Your task to perform on an android device: turn off javascript in the chrome app Image 0: 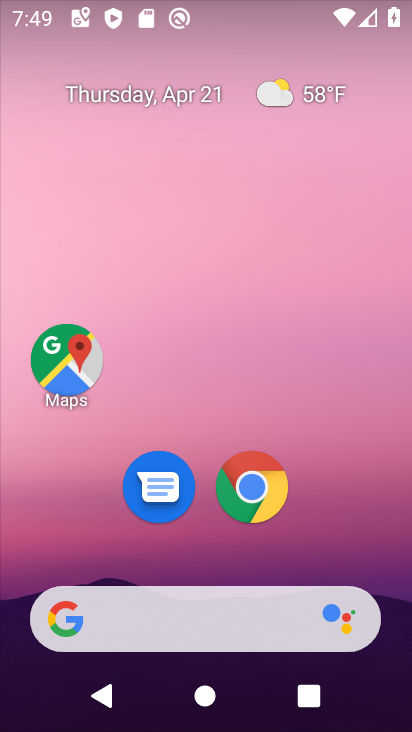
Step 0: drag from (314, 390) to (224, 2)
Your task to perform on an android device: turn off javascript in the chrome app Image 1: 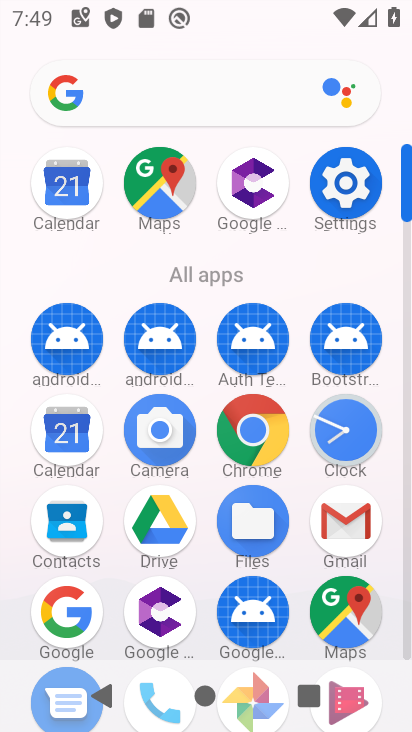
Step 1: drag from (15, 527) to (15, 240)
Your task to perform on an android device: turn off javascript in the chrome app Image 2: 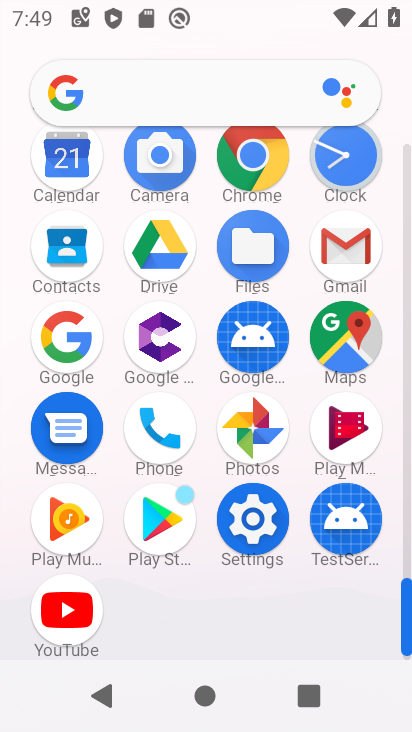
Step 2: click (252, 158)
Your task to perform on an android device: turn off javascript in the chrome app Image 3: 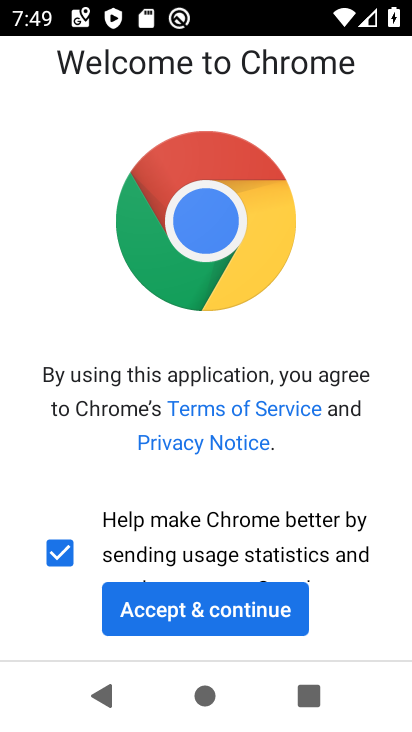
Step 3: click (200, 594)
Your task to perform on an android device: turn off javascript in the chrome app Image 4: 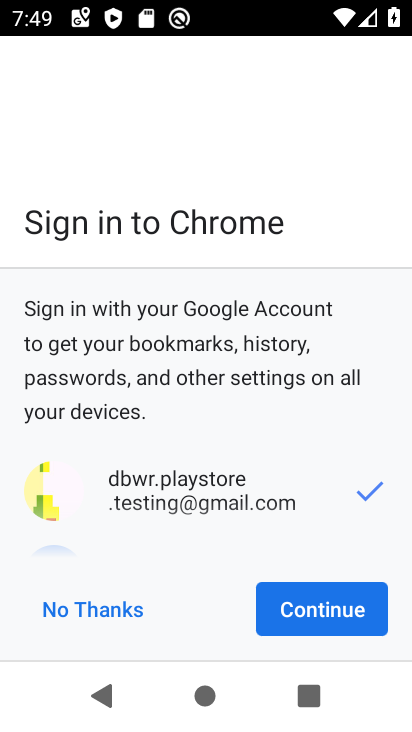
Step 4: click (308, 605)
Your task to perform on an android device: turn off javascript in the chrome app Image 5: 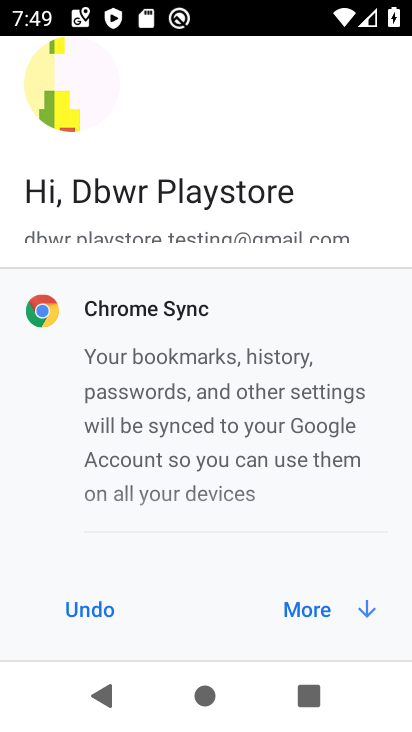
Step 5: click (308, 605)
Your task to perform on an android device: turn off javascript in the chrome app Image 6: 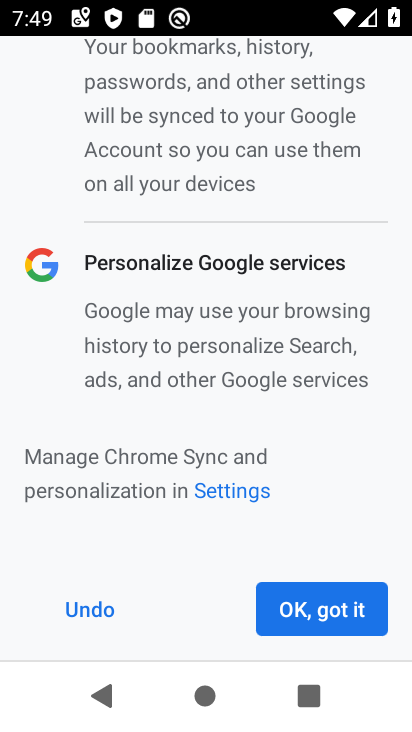
Step 6: click (308, 605)
Your task to perform on an android device: turn off javascript in the chrome app Image 7: 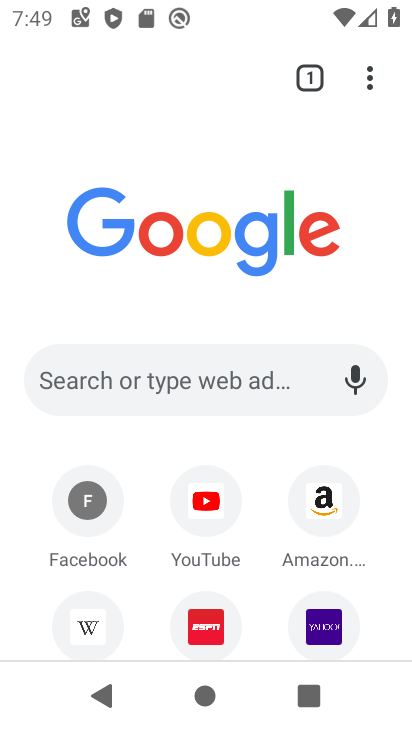
Step 7: drag from (369, 80) to (148, 533)
Your task to perform on an android device: turn off javascript in the chrome app Image 8: 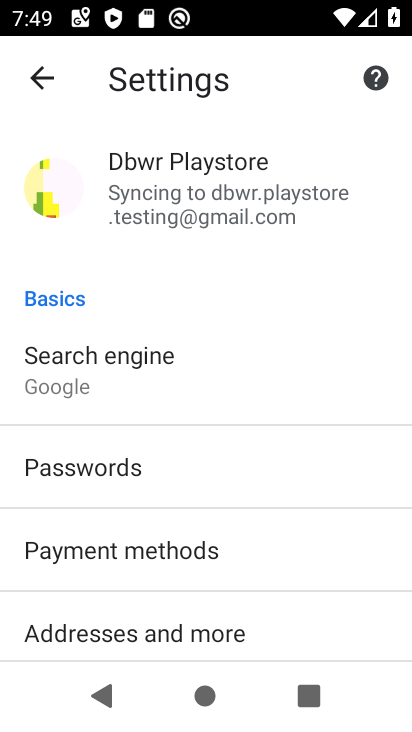
Step 8: drag from (238, 440) to (238, 186)
Your task to perform on an android device: turn off javascript in the chrome app Image 9: 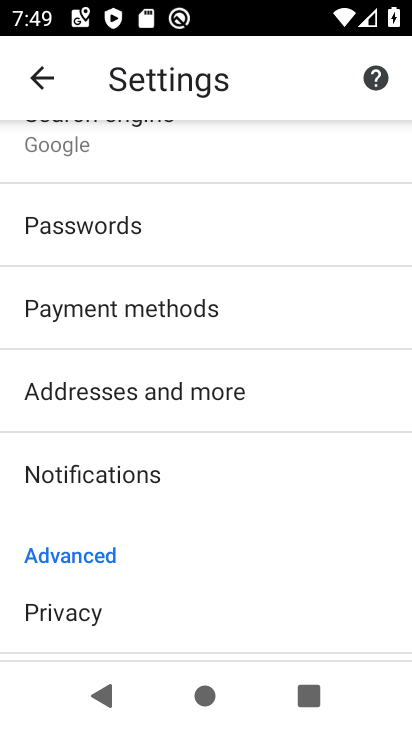
Step 9: drag from (248, 570) to (253, 163)
Your task to perform on an android device: turn off javascript in the chrome app Image 10: 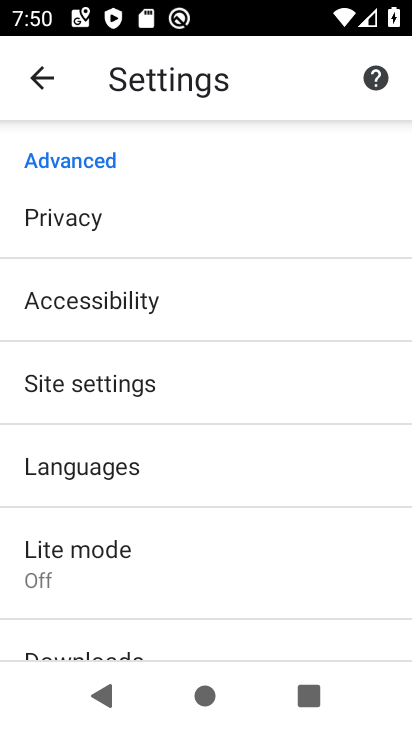
Step 10: click (116, 375)
Your task to perform on an android device: turn off javascript in the chrome app Image 11: 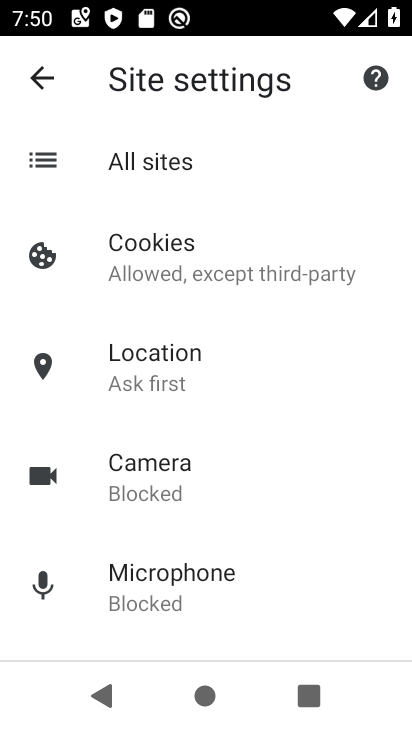
Step 11: drag from (260, 517) to (266, 179)
Your task to perform on an android device: turn off javascript in the chrome app Image 12: 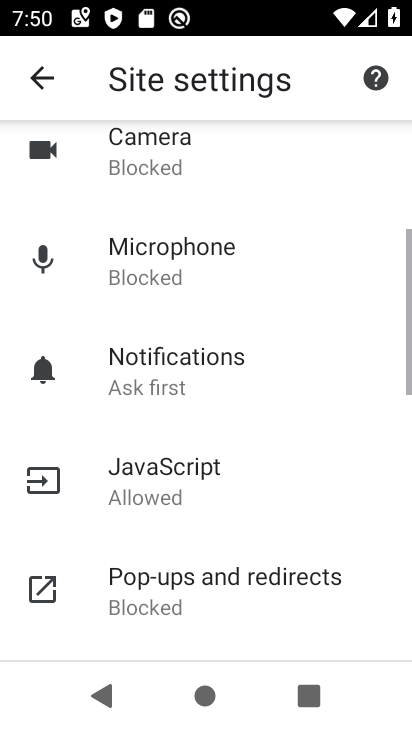
Step 12: drag from (278, 475) to (267, 168)
Your task to perform on an android device: turn off javascript in the chrome app Image 13: 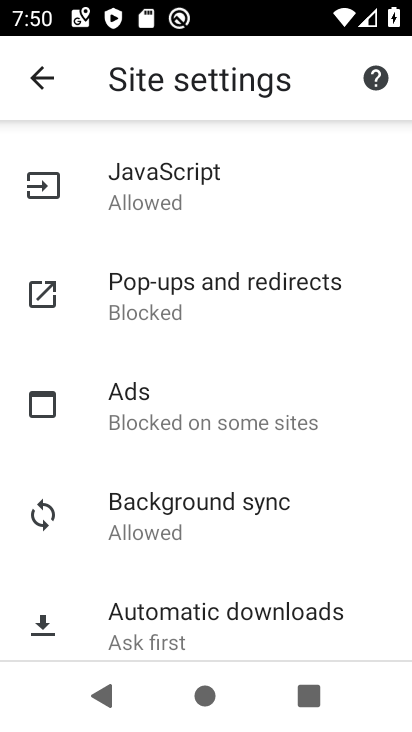
Step 13: click (243, 180)
Your task to perform on an android device: turn off javascript in the chrome app Image 14: 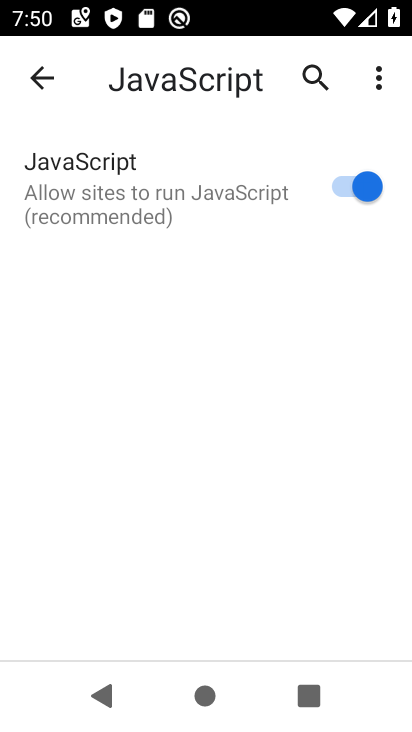
Step 14: click (339, 184)
Your task to perform on an android device: turn off javascript in the chrome app Image 15: 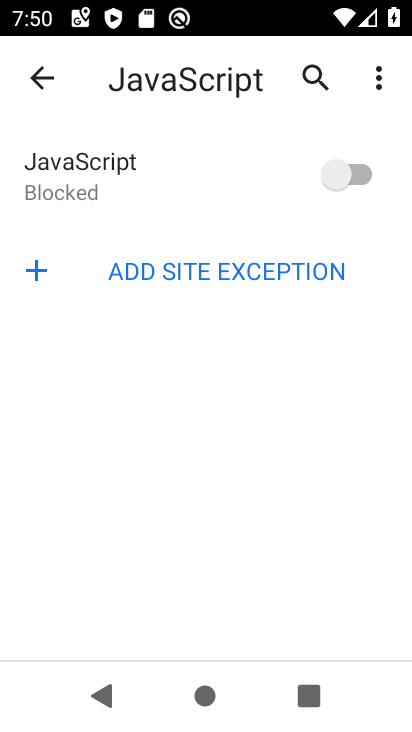
Step 15: task complete